Your task to perform on an android device: Open eBay Image 0: 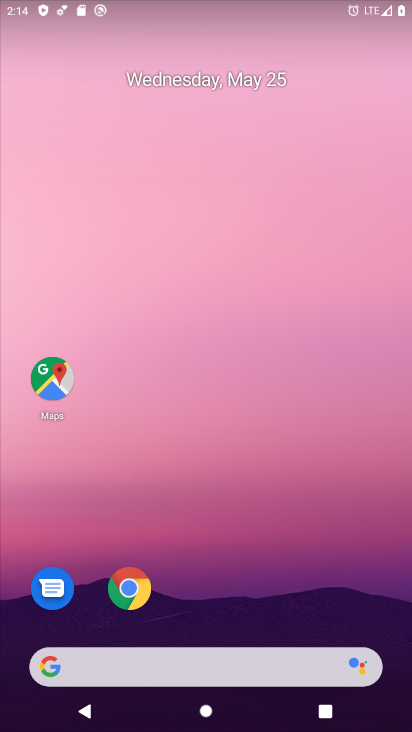
Step 0: drag from (259, 555) to (216, 64)
Your task to perform on an android device: Open eBay Image 1: 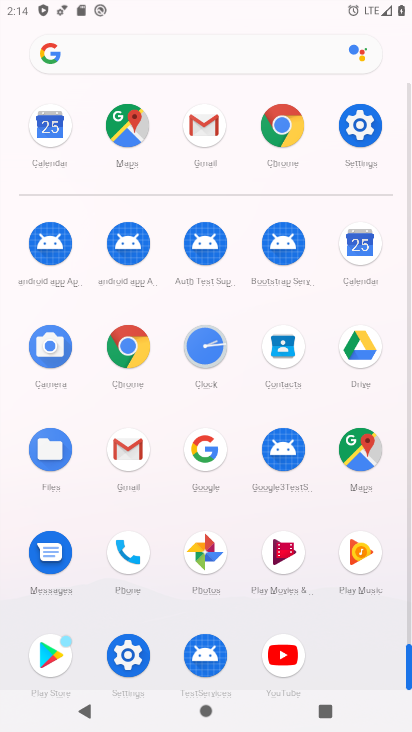
Step 1: drag from (13, 532) to (11, 234)
Your task to perform on an android device: Open eBay Image 2: 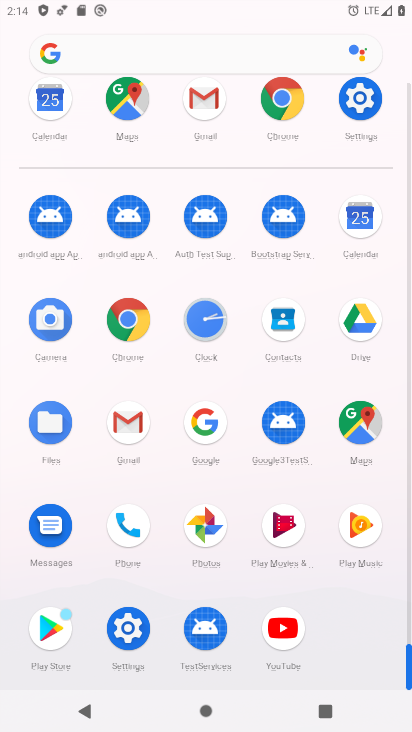
Step 2: click (124, 315)
Your task to perform on an android device: Open eBay Image 3: 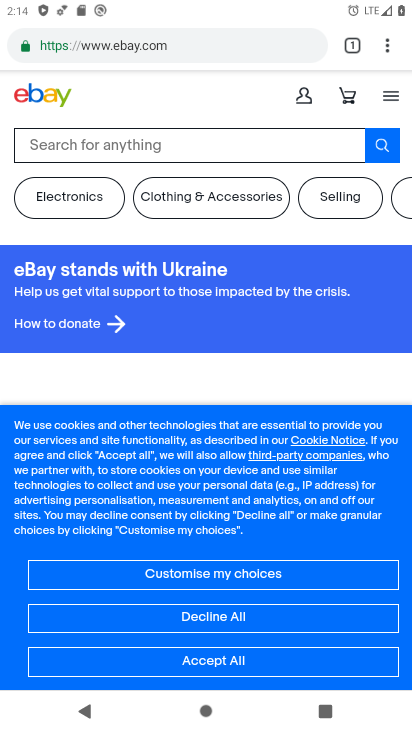
Step 3: task complete